Your task to perform on an android device: Search for seafood restaurants on Google Maps Image 0: 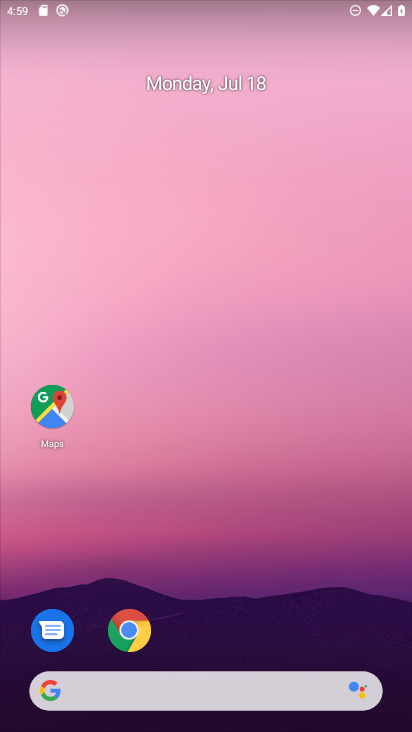
Step 0: press home button
Your task to perform on an android device: Search for seafood restaurants on Google Maps Image 1: 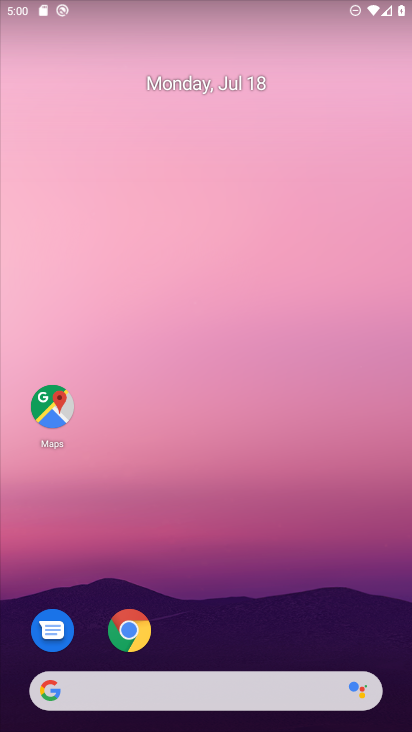
Step 1: click (45, 421)
Your task to perform on an android device: Search for seafood restaurants on Google Maps Image 2: 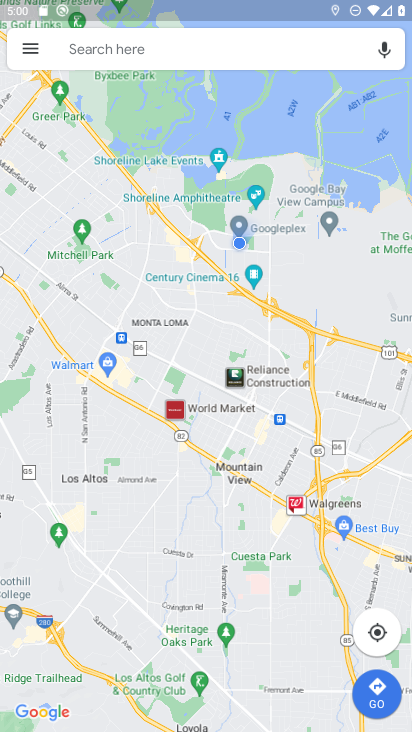
Step 2: click (132, 40)
Your task to perform on an android device: Search for seafood restaurants on Google Maps Image 3: 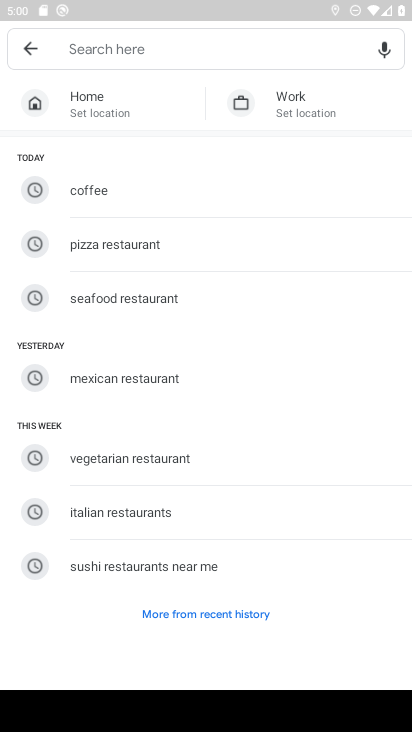
Step 3: click (123, 297)
Your task to perform on an android device: Search for seafood restaurants on Google Maps Image 4: 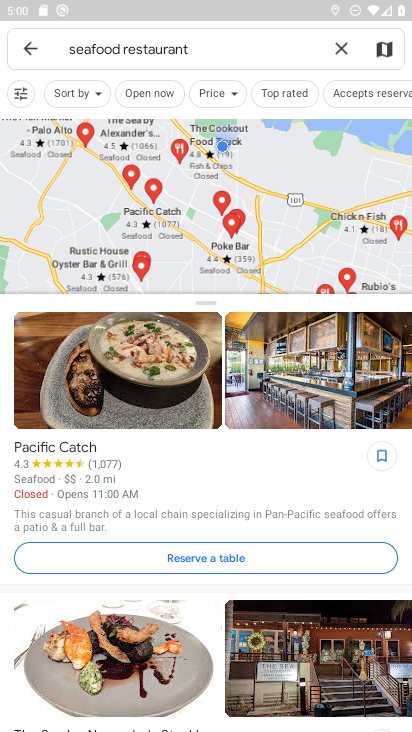
Step 4: task complete